Your task to perform on an android device: turn on the 12-hour format for clock Image 0: 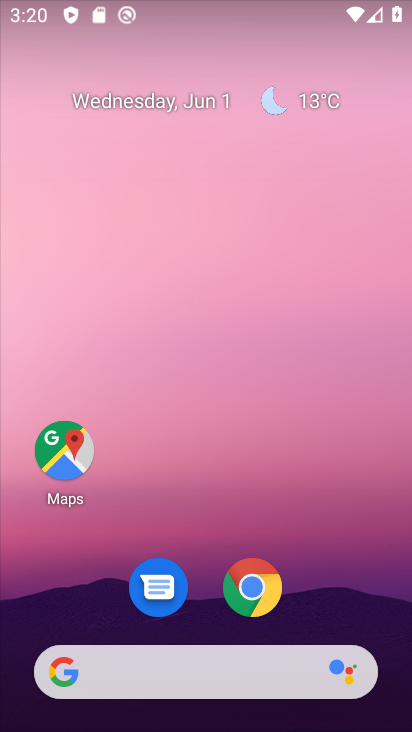
Step 0: drag from (345, 516) to (261, 9)
Your task to perform on an android device: turn on the 12-hour format for clock Image 1: 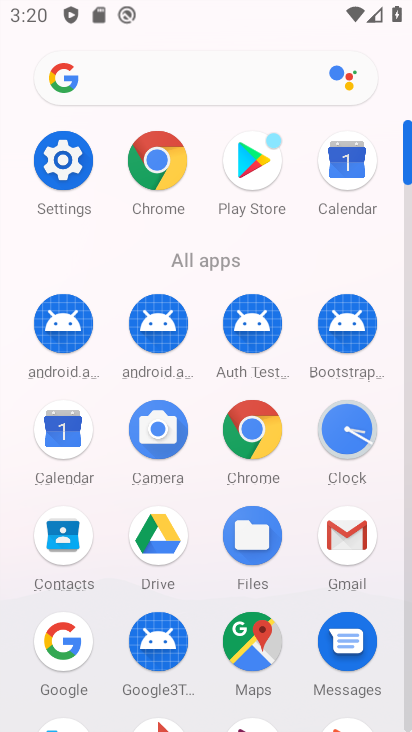
Step 1: drag from (23, 573) to (29, 169)
Your task to perform on an android device: turn on the 12-hour format for clock Image 2: 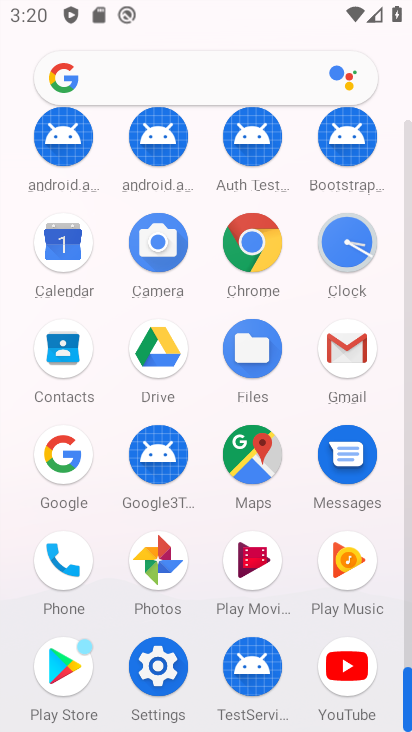
Step 2: click (341, 238)
Your task to perform on an android device: turn on the 12-hour format for clock Image 3: 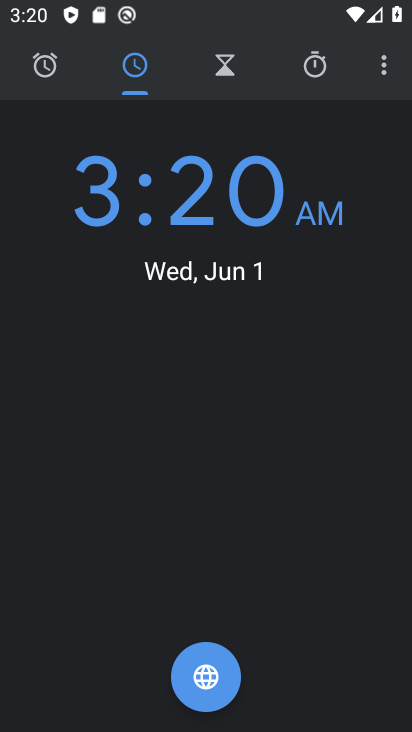
Step 3: drag from (378, 56) to (272, 123)
Your task to perform on an android device: turn on the 12-hour format for clock Image 4: 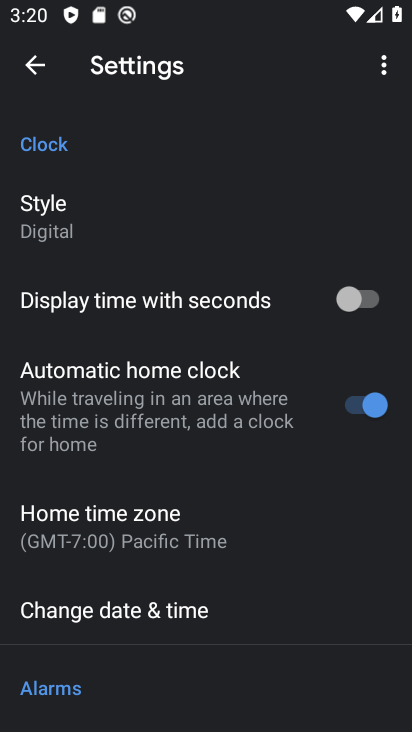
Step 4: drag from (195, 561) to (189, 155)
Your task to perform on an android device: turn on the 12-hour format for clock Image 5: 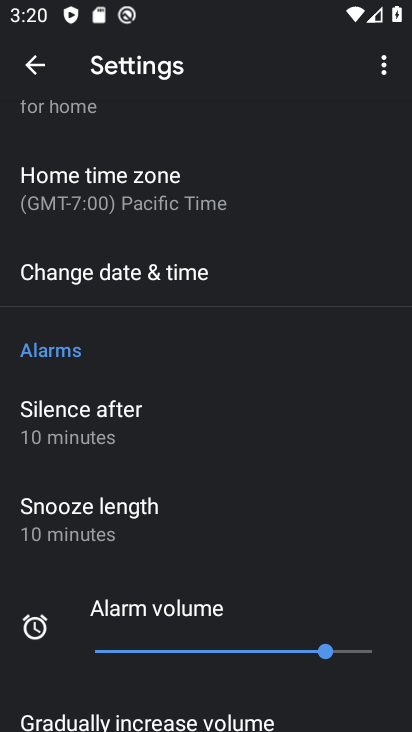
Step 5: click (143, 256)
Your task to perform on an android device: turn on the 12-hour format for clock Image 6: 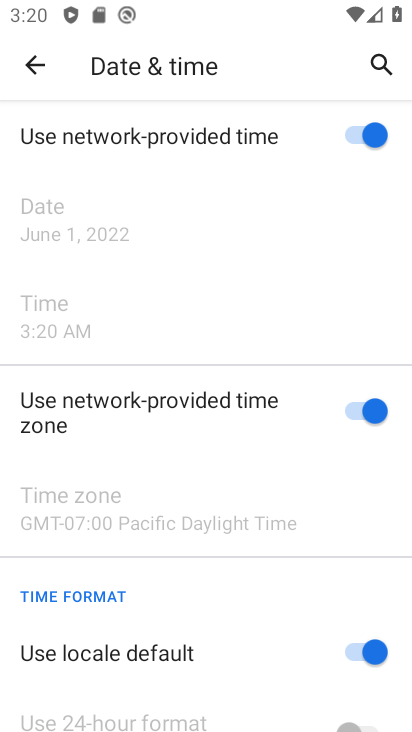
Step 6: task complete